Your task to perform on an android device: open app "Airtel Thanks" (install if not already installed) and go to login screen Image 0: 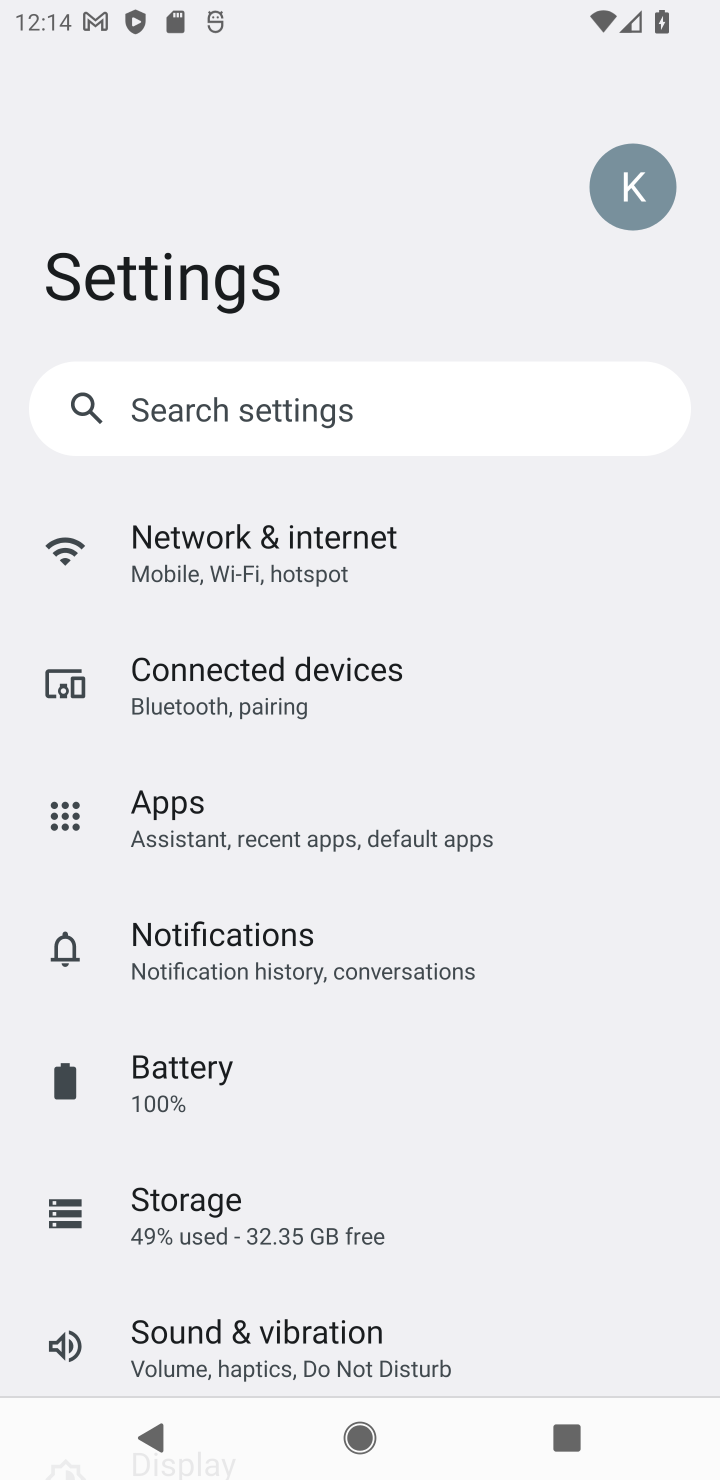
Step 0: press home button
Your task to perform on an android device: open app "Airtel Thanks" (install if not already installed) and go to login screen Image 1: 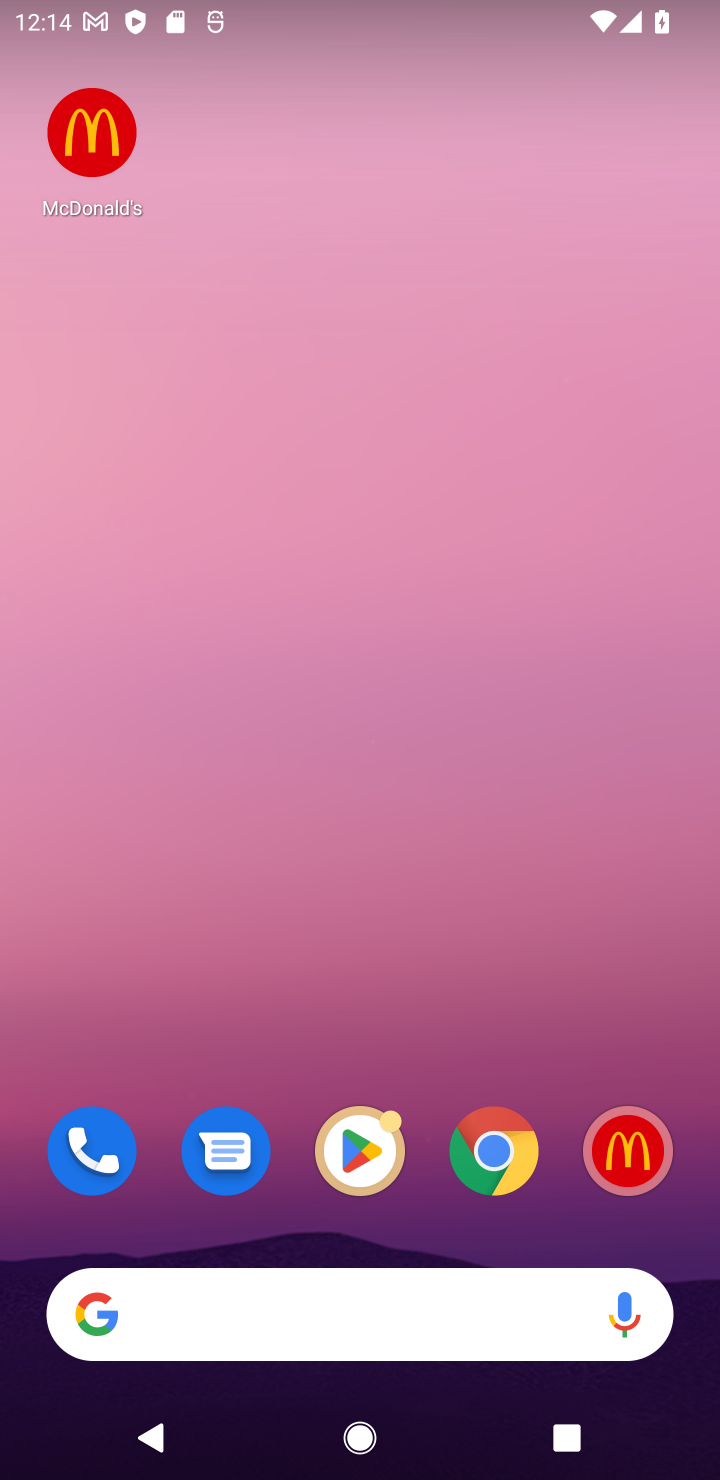
Step 1: drag from (305, 1217) to (430, 185)
Your task to perform on an android device: open app "Airtel Thanks" (install if not already installed) and go to login screen Image 2: 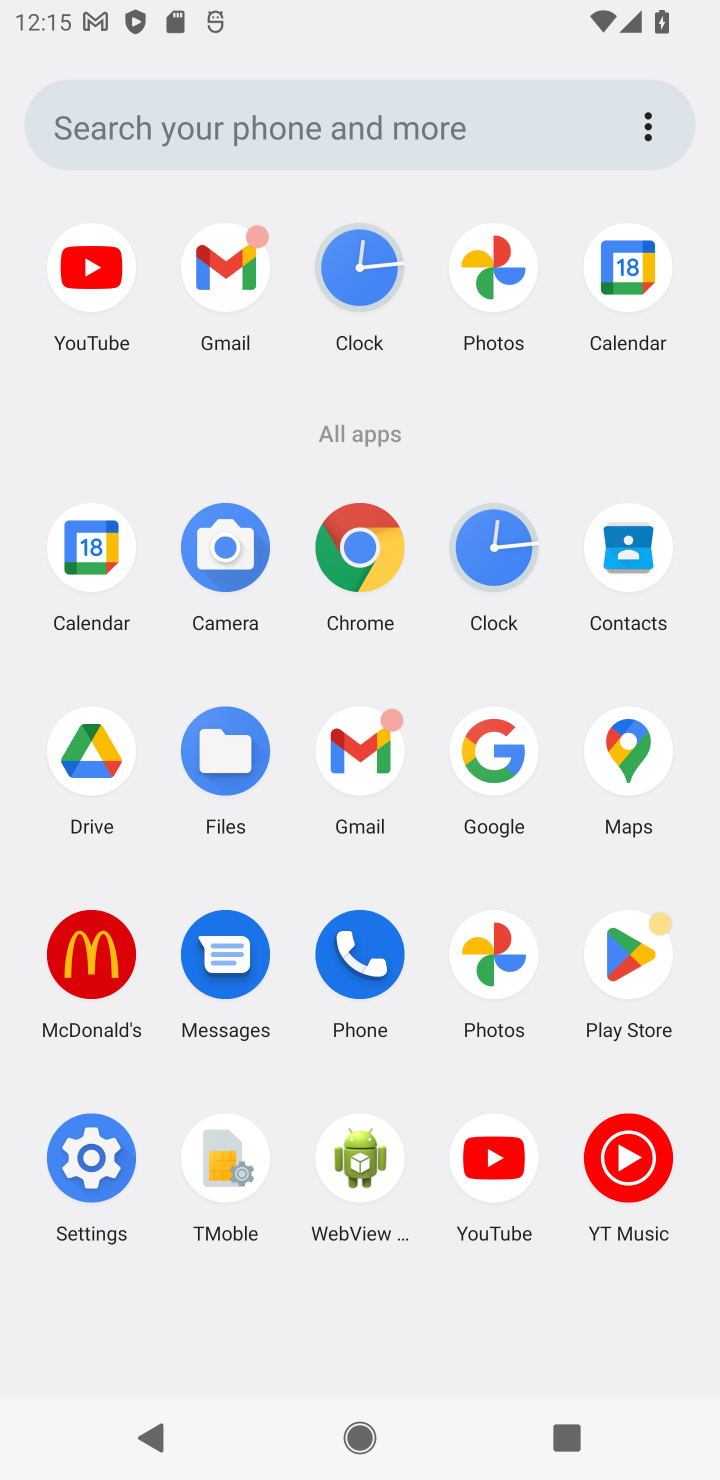
Step 2: click (633, 961)
Your task to perform on an android device: open app "Airtel Thanks" (install if not already installed) and go to login screen Image 3: 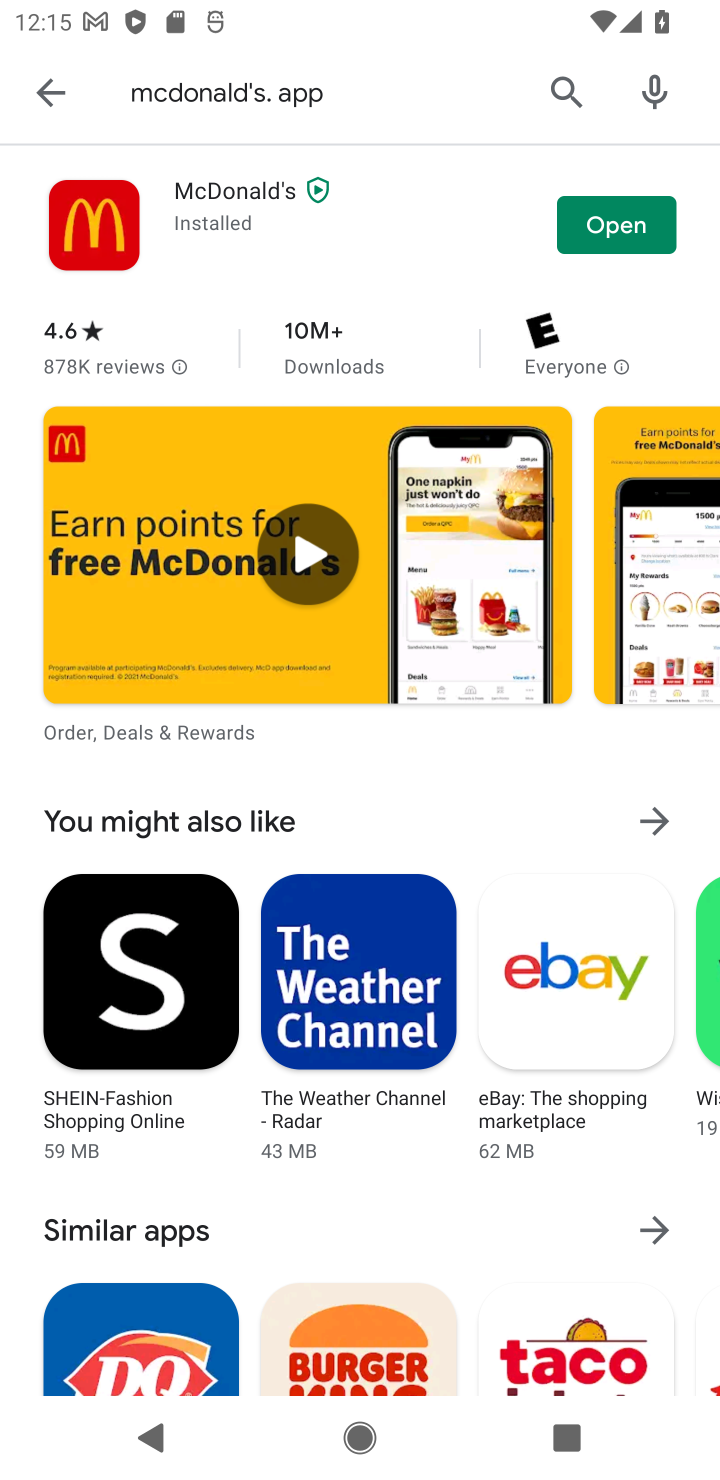
Step 3: click (54, 97)
Your task to perform on an android device: open app "Airtel Thanks" (install if not already installed) and go to login screen Image 4: 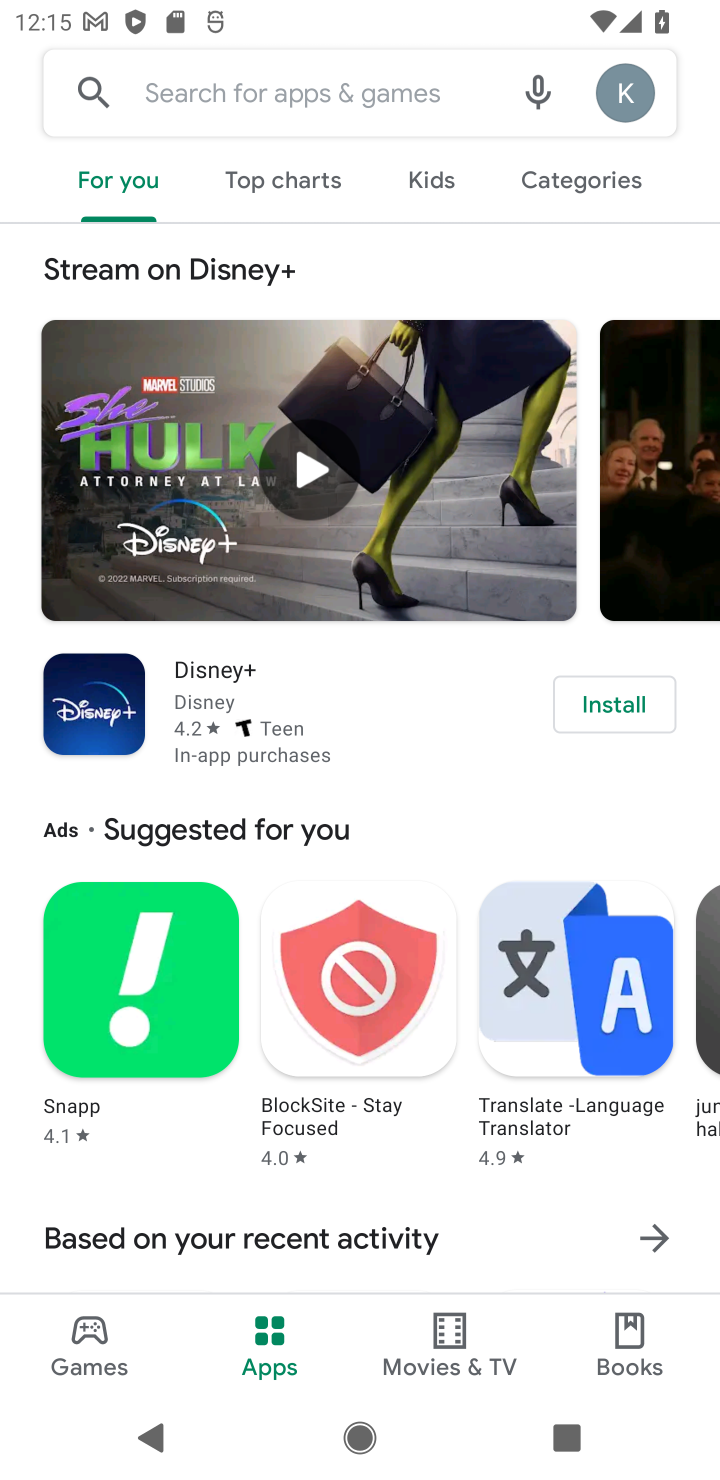
Step 4: click (223, 97)
Your task to perform on an android device: open app "Airtel Thanks" (install if not already installed) and go to login screen Image 5: 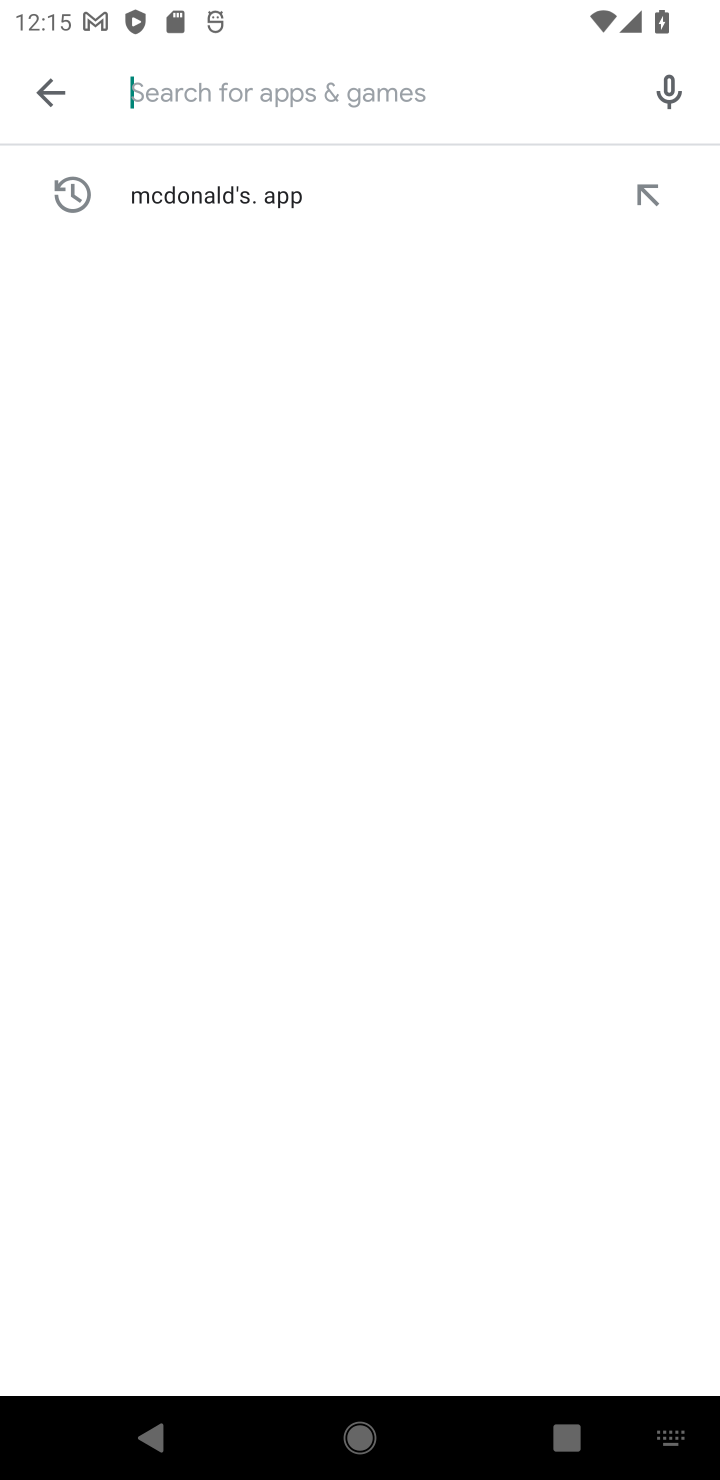
Step 5: type "Airtel Thanks"
Your task to perform on an android device: open app "Airtel Thanks" (install if not already installed) and go to login screen Image 6: 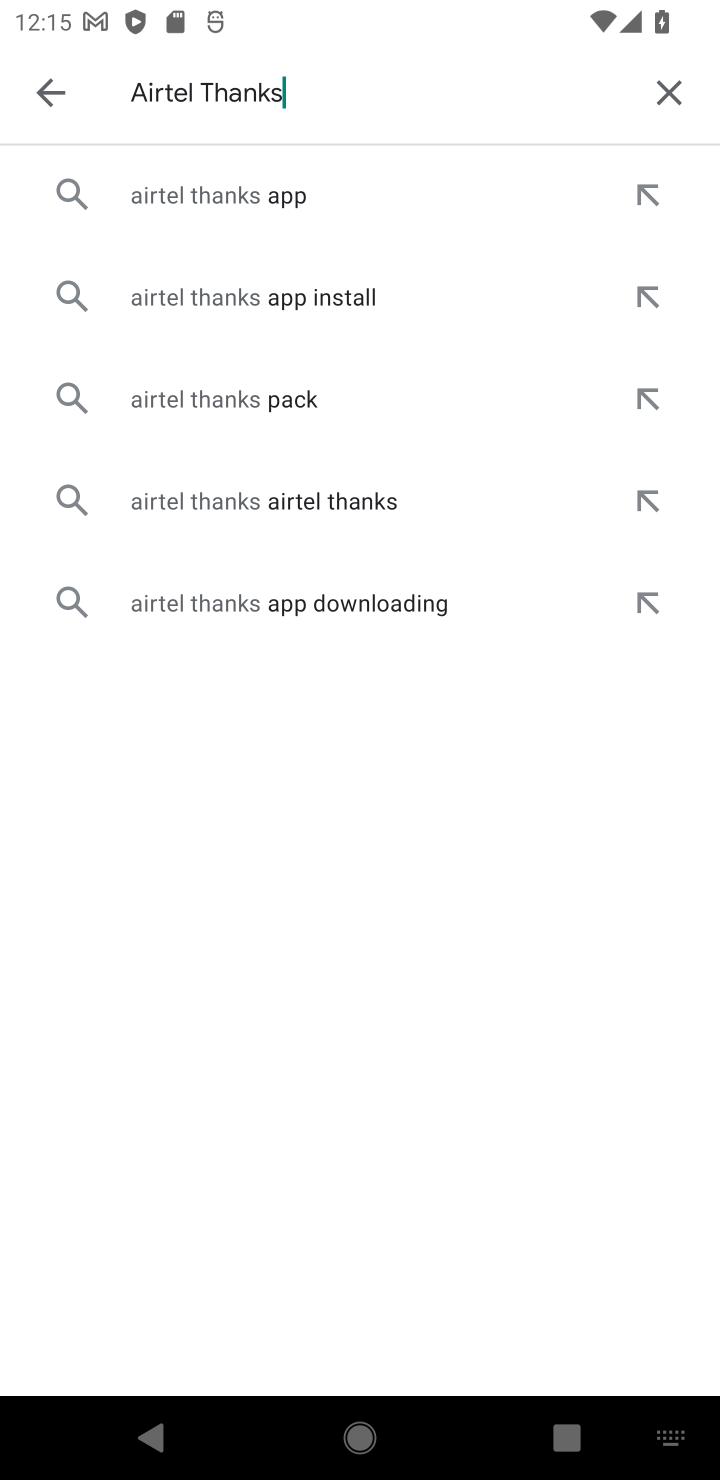
Step 6: click (239, 177)
Your task to perform on an android device: open app "Airtel Thanks" (install if not already installed) and go to login screen Image 7: 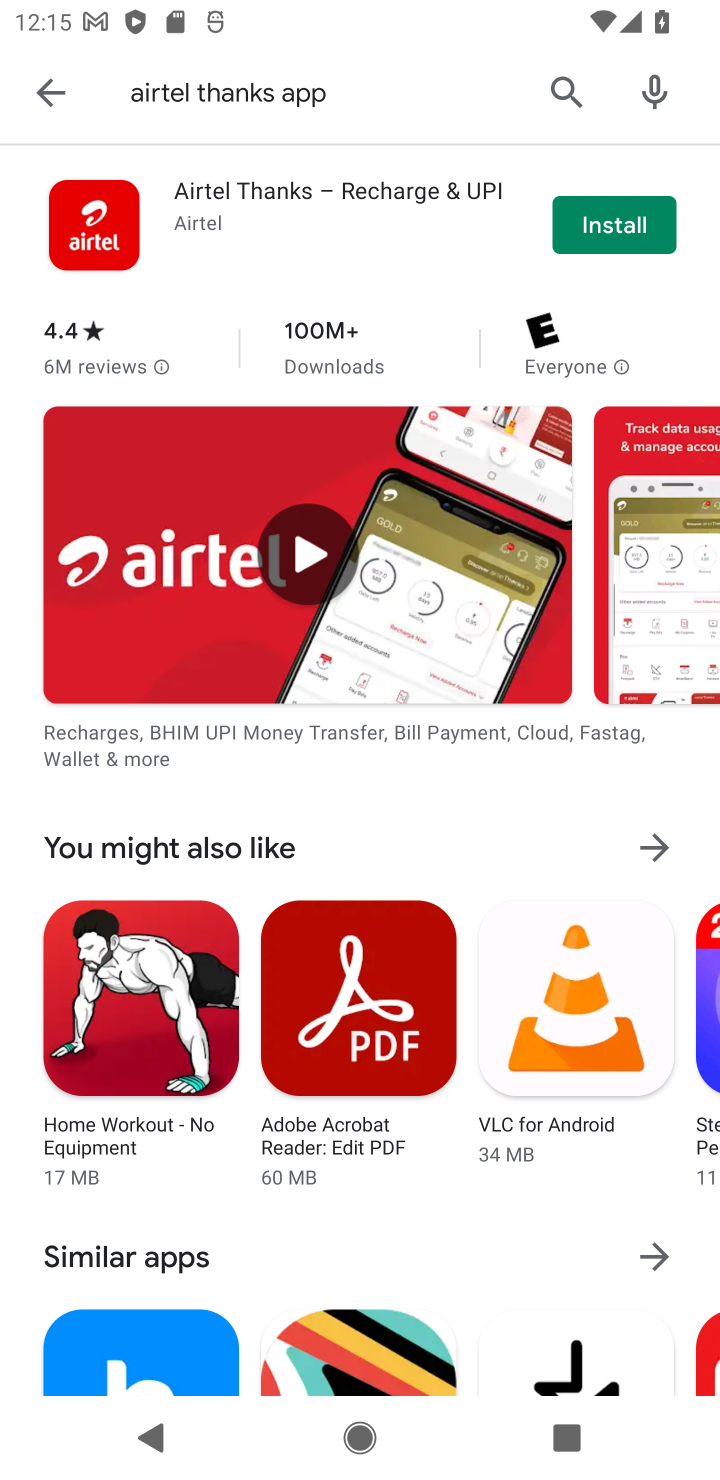
Step 7: click (579, 219)
Your task to perform on an android device: open app "Airtel Thanks" (install if not already installed) and go to login screen Image 8: 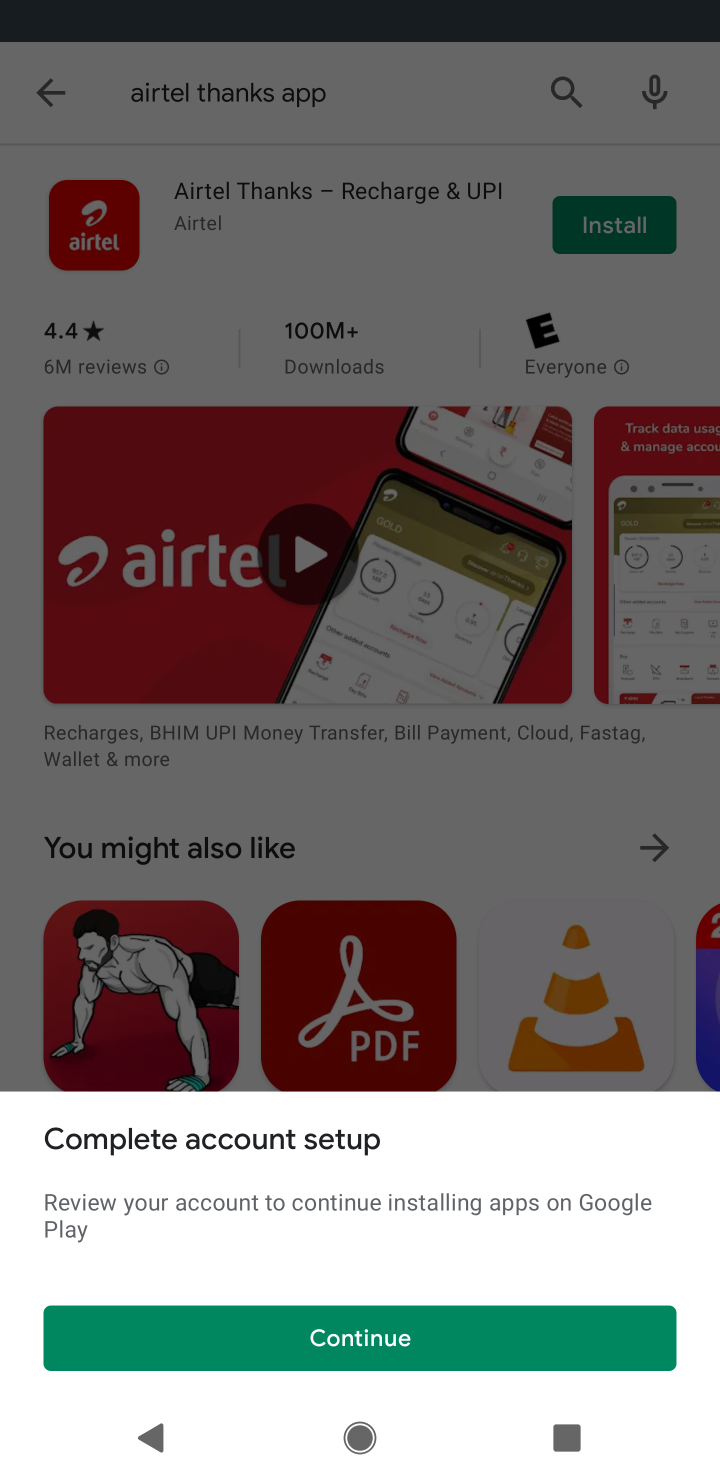
Step 8: click (314, 1336)
Your task to perform on an android device: open app "Airtel Thanks" (install if not already installed) and go to login screen Image 9: 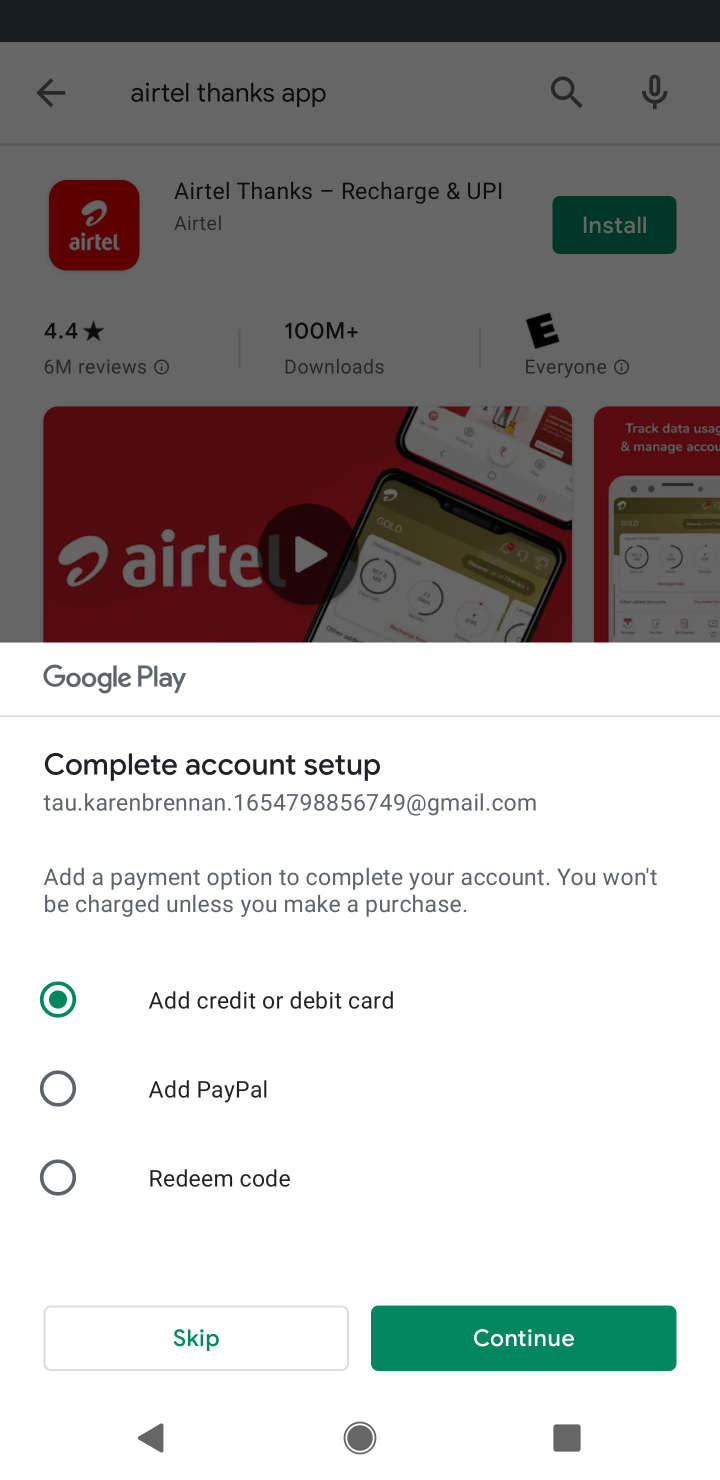
Step 9: click (172, 1343)
Your task to perform on an android device: open app "Airtel Thanks" (install if not already installed) and go to login screen Image 10: 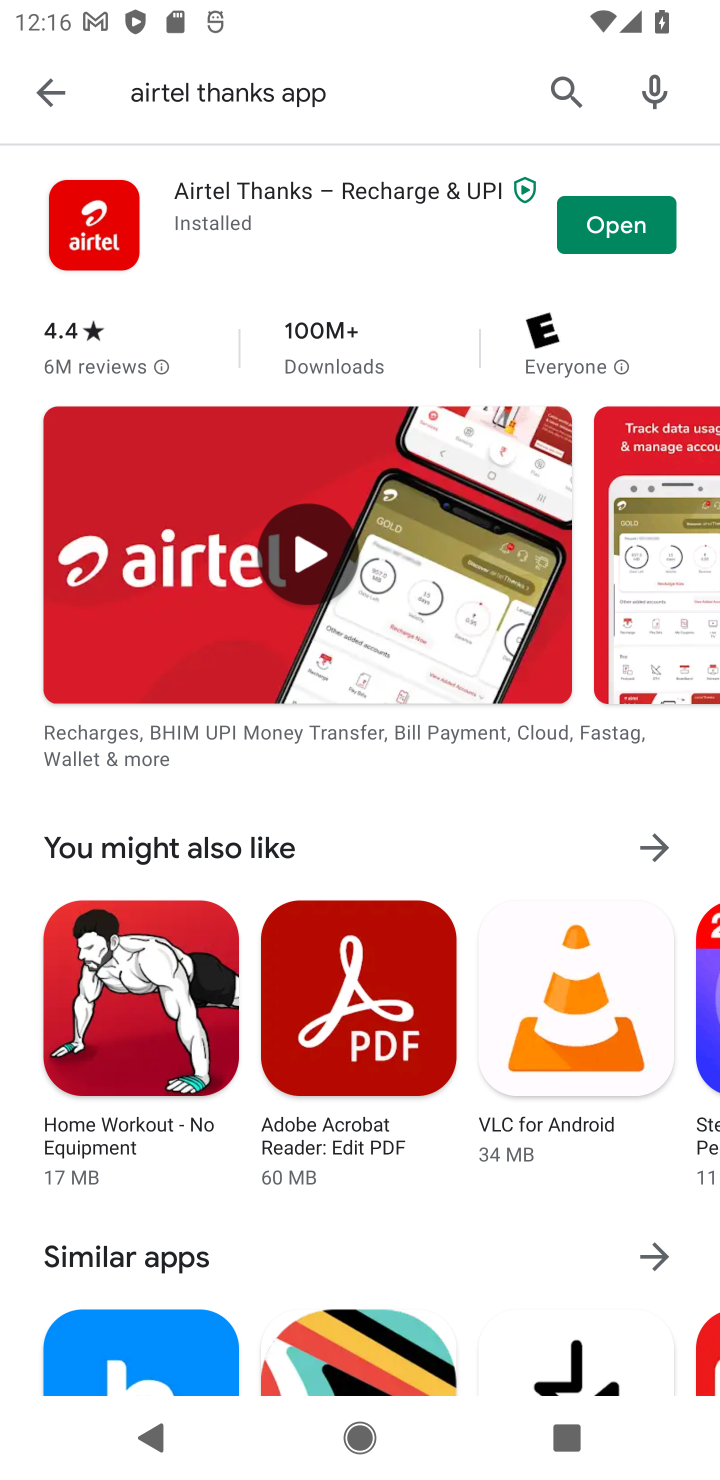
Step 10: click (606, 211)
Your task to perform on an android device: open app "Airtel Thanks" (install if not already installed) and go to login screen Image 11: 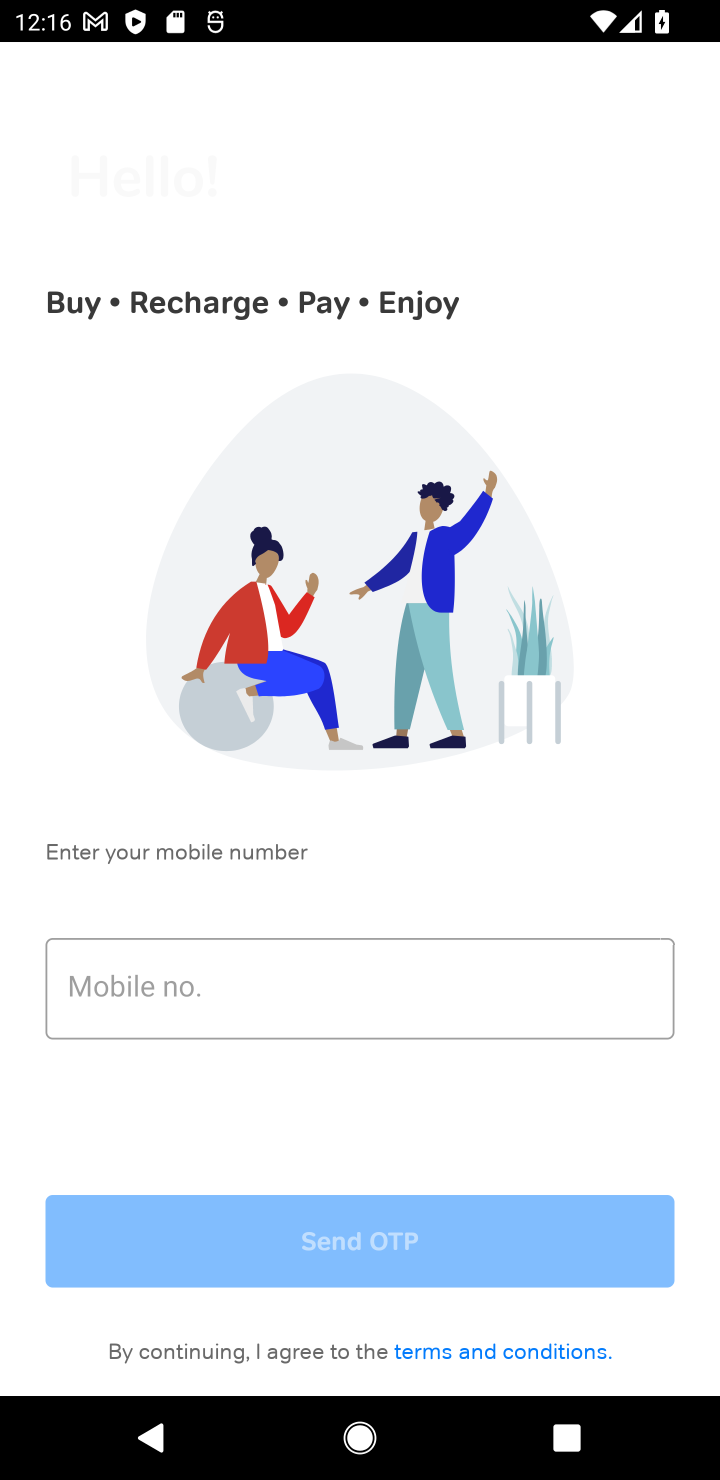
Step 11: task complete